Your task to perform on an android device: Go to Yahoo.com Image 0: 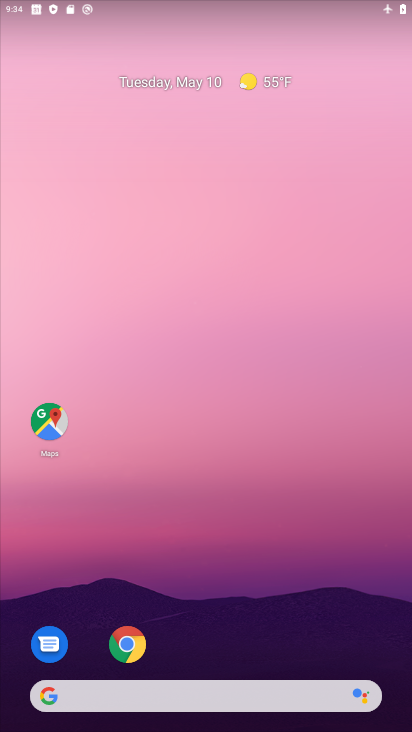
Step 0: drag from (178, 633) to (103, 35)
Your task to perform on an android device: Go to Yahoo.com Image 1: 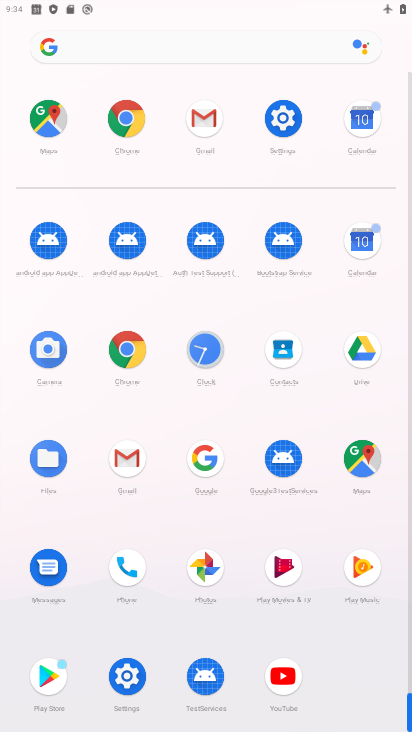
Step 1: click (134, 126)
Your task to perform on an android device: Go to Yahoo.com Image 2: 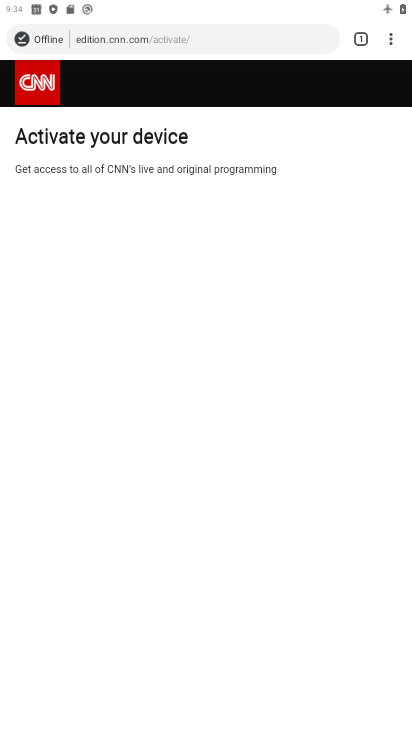
Step 2: click (258, 42)
Your task to perform on an android device: Go to Yahoo.com Image 3: 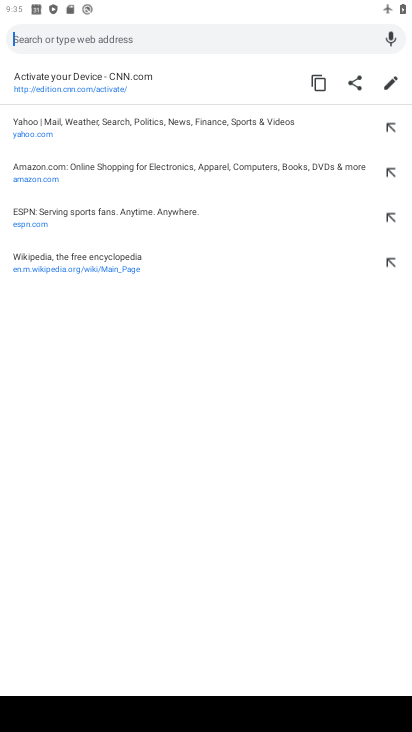
Step 3: click (163, 128)
Your task to perform on an android device: Go to Yahoo.com Image 4: 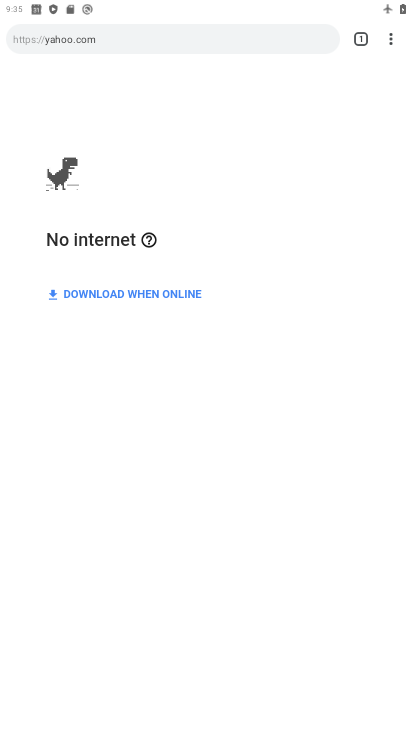
Step 4: task complete